Your task to perform on an android device: Search for sushi restaurants on Maps Image 0: 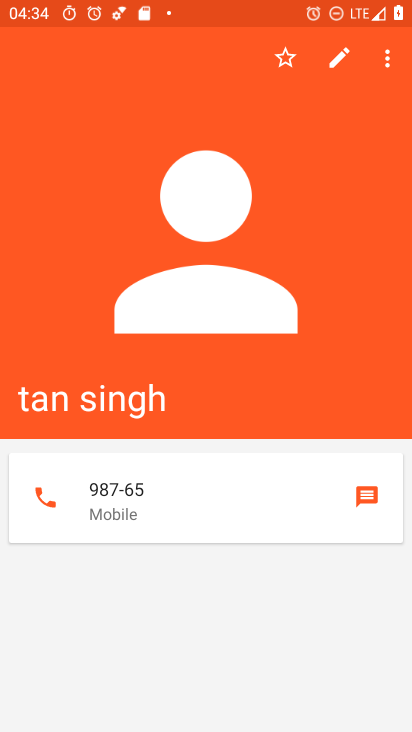
Step 0: press home button
Your task to perform on an android device: Search for sushi restaurants on Maps Image 1: 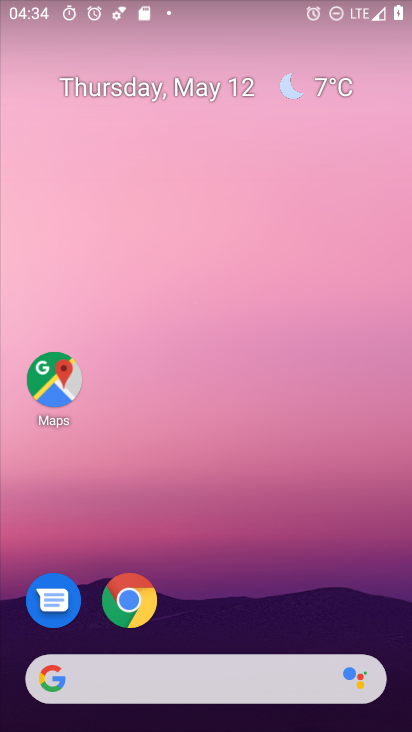
Step 1: drag from (215, 715) to (217, 139)
Your task to perform on an android device: Search for sushi restaurants on Maps Image 2: 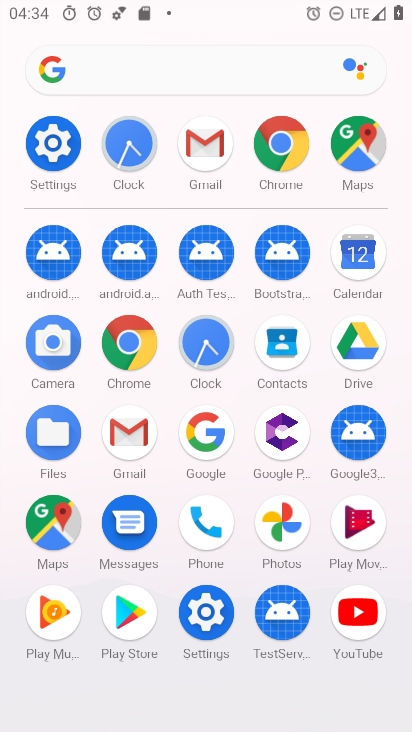
Step 2: click (54, 532)
Your task to perform on an android device: Search for sushi restaurants on Maps Image 3: 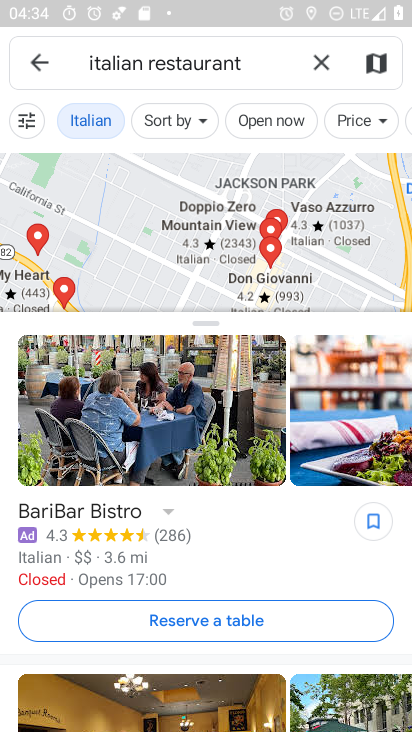
Step 3: click (320, 60)
Your task to perform on an android device: Search for sushi restaurants on Maps Image 4: 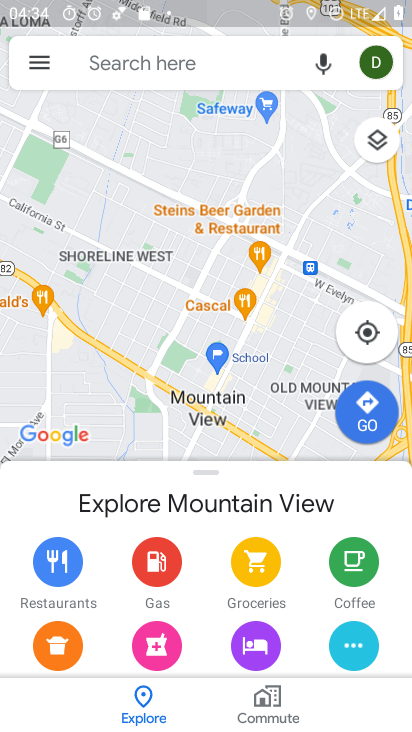
Step 4: click (177, 64)
Your task to perform on an android device: Search for sushi restaurants on Maps Image 5: 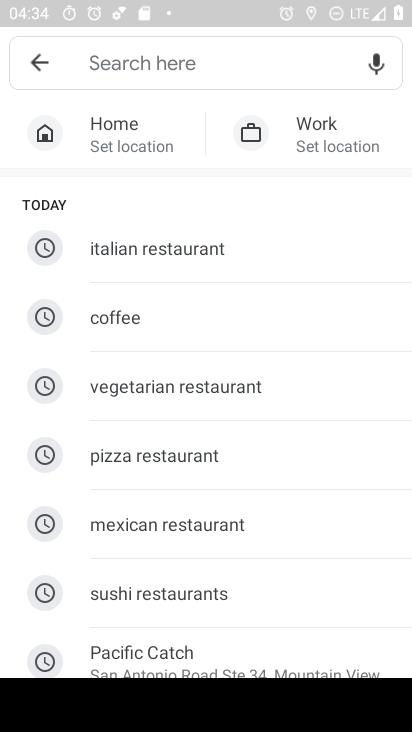
Step 5: type "sushi restaurants"
Your task to perform on an android device: Search for sushi restaurants on Maps Image 6: 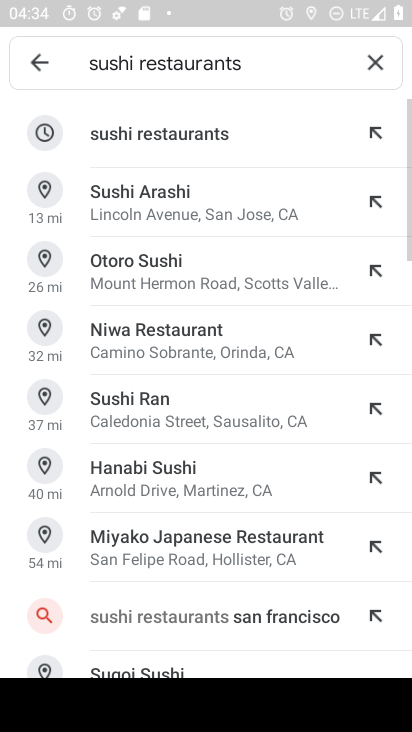
Step 6: click (117, 133)
Your task to perform on an android device: Search for sushi restaurants on Maps Image 7: 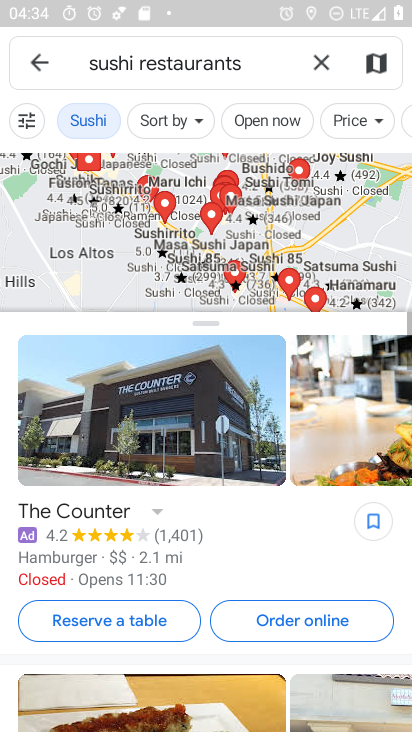
Step 7: task complete